Your task to perform on an android device: View the shopping cart on walmart.com. Image 0: 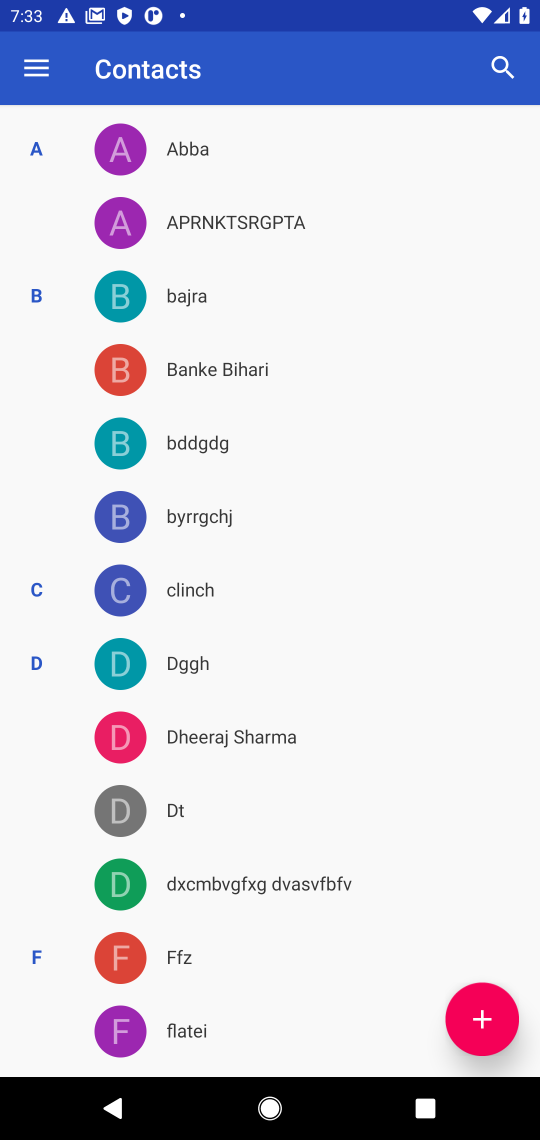
Step 0: press home button
Your task to perform on an android device: View the shopping cart on walmart.com. Image 1: 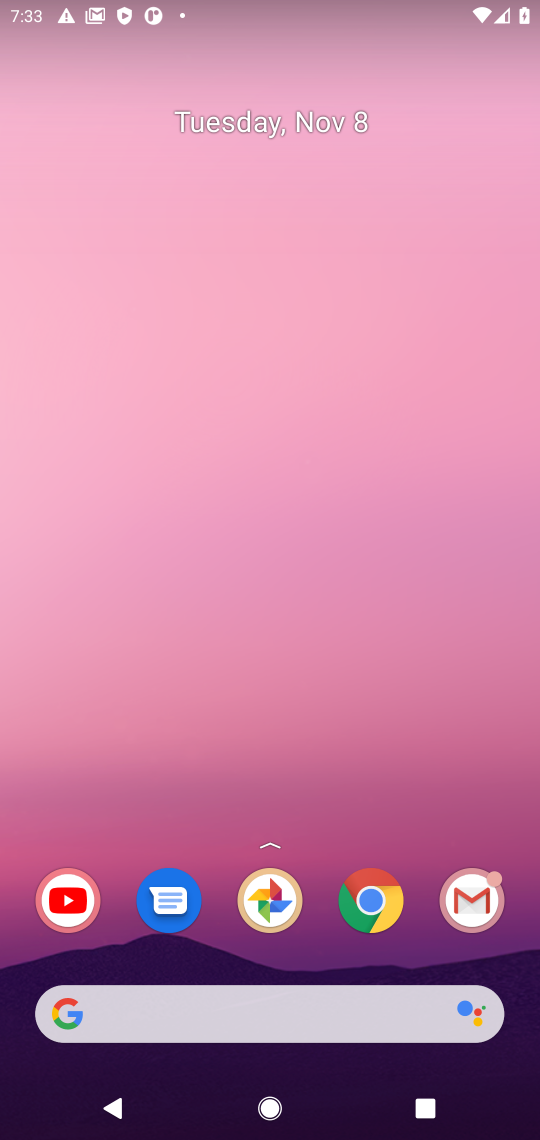
Step 1: click (370, 900)
Your task to perform on an android device: View the shopping cart on walmart.com. Image 2: 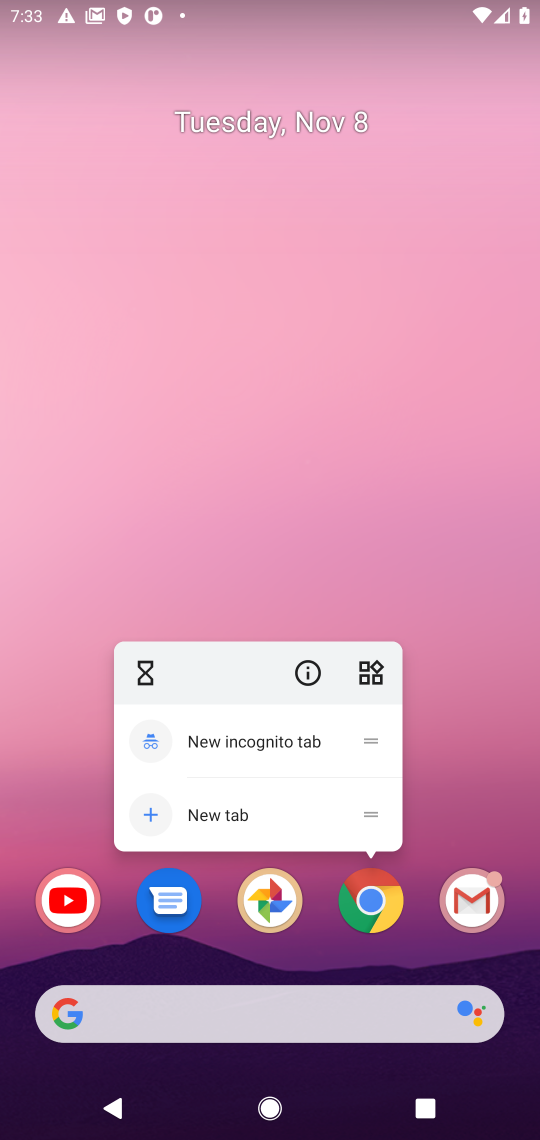
Step 2: click (373, 912)
Your task to perform on an android device: View the shopping cart on walmart.com. Image 3: 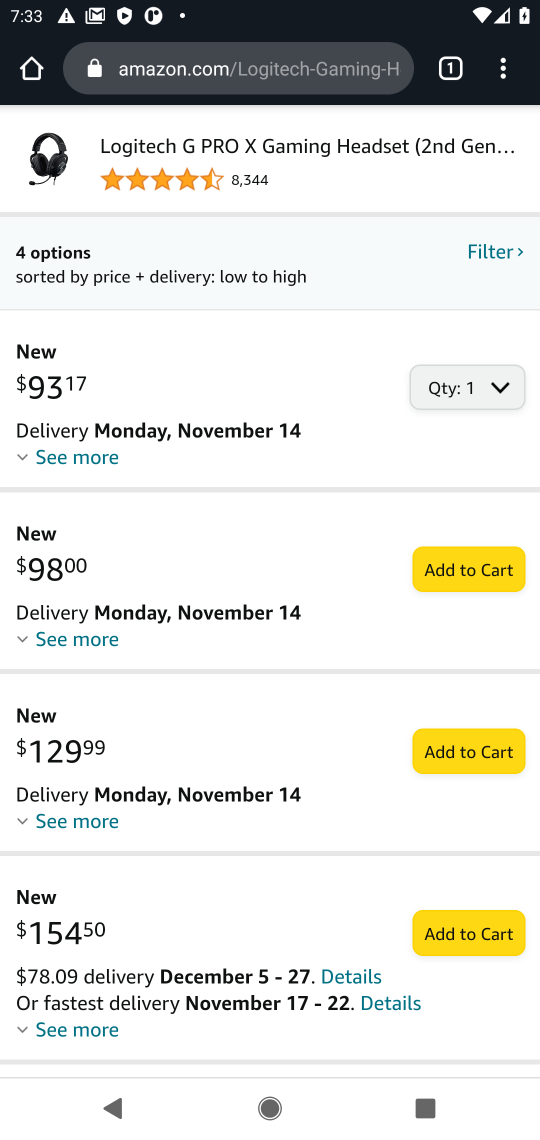
Step 3: click (160, 72)
Your task to perform on an android device: View the shopping cart on walmart.com. Image 4: 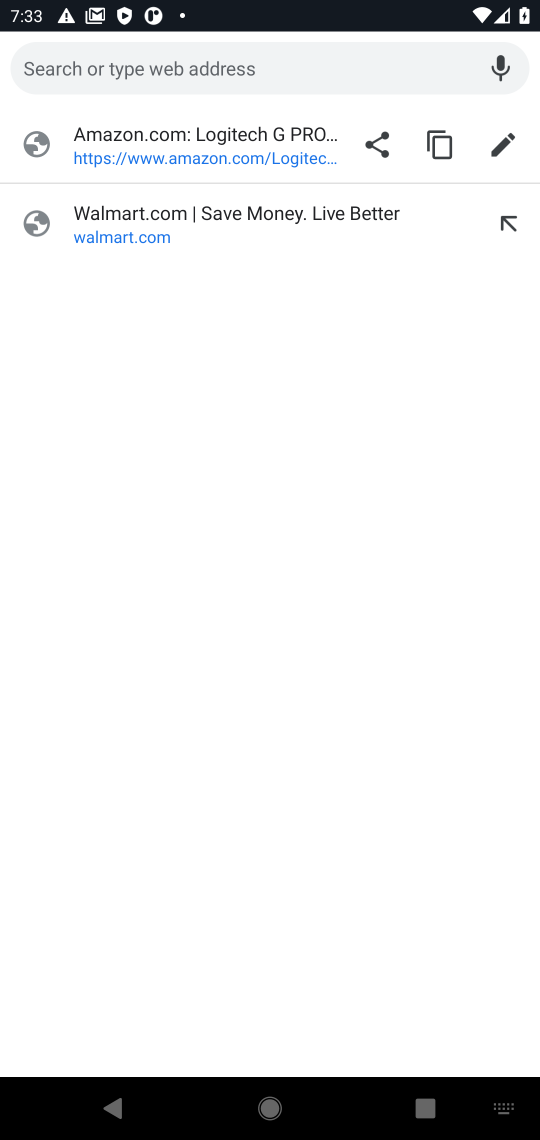
Step 4: type "walmart"
Your task to perform on an android device: View the shopping cart on walmart.com. Image 5: 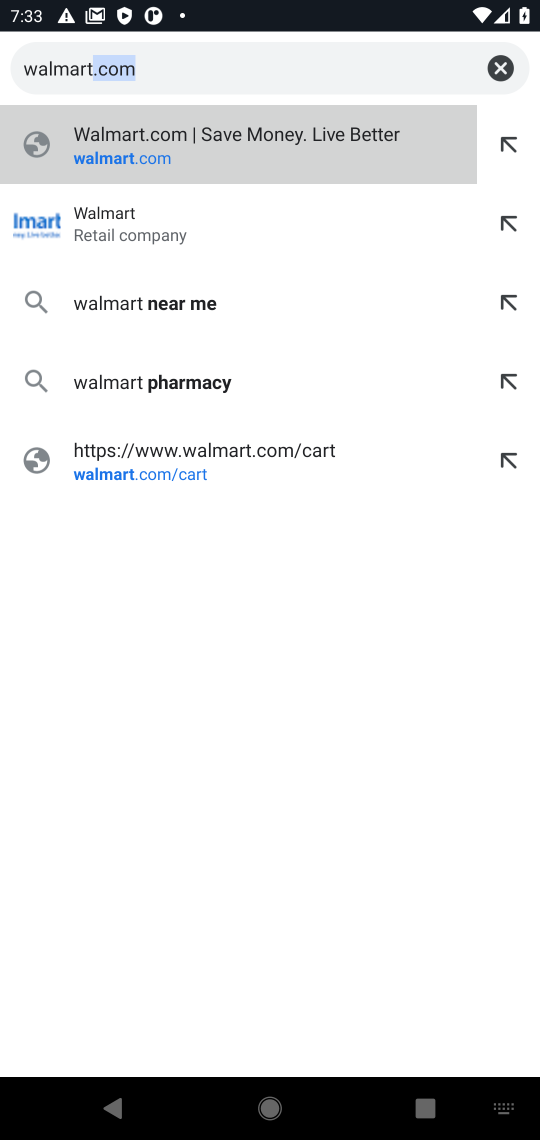
Step 5: click (101, 212)
Your task to perform on an android device: View the shopping cart on walmart.com. Image 6: 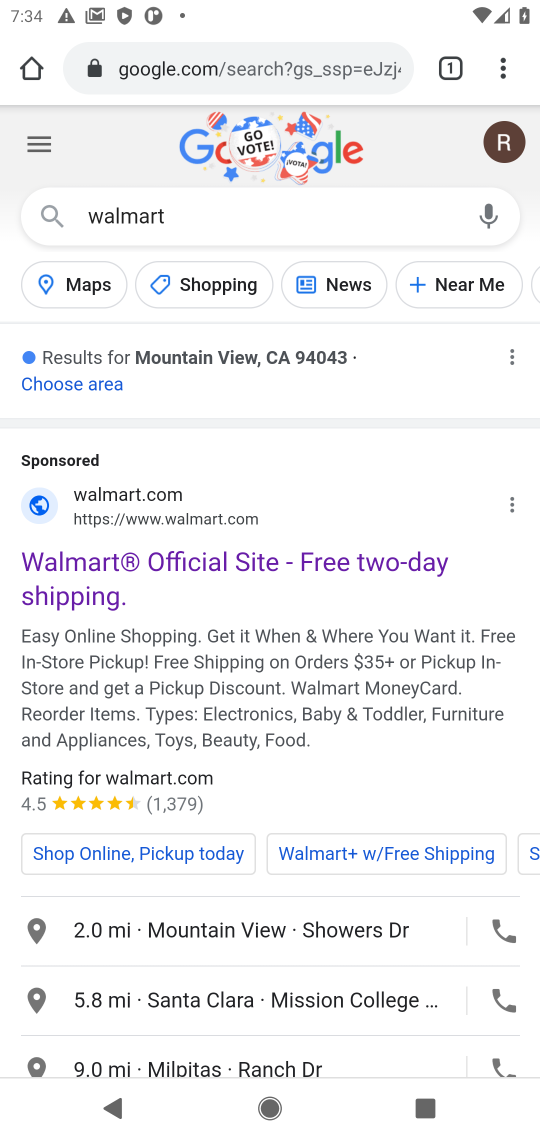
Step 6: drag from (212, 754) to (180, 331)
Your task to perform on an android device: View the shopping cart on walmart.com. Image 7: 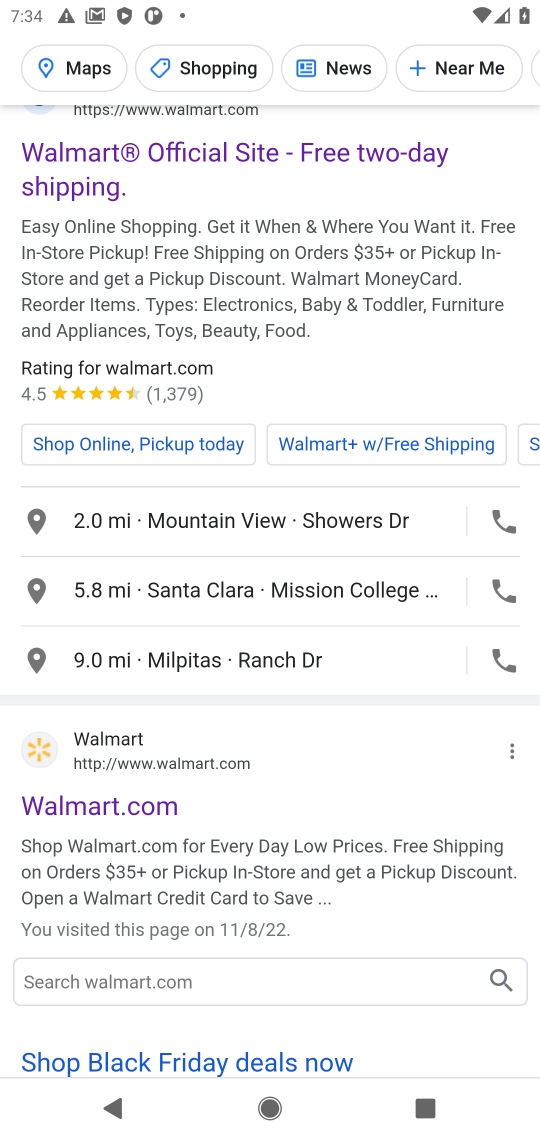
Step 7: click (98, 809)
Your task to perform on an android device: View the shopping cart on walmart.com. Image 8: 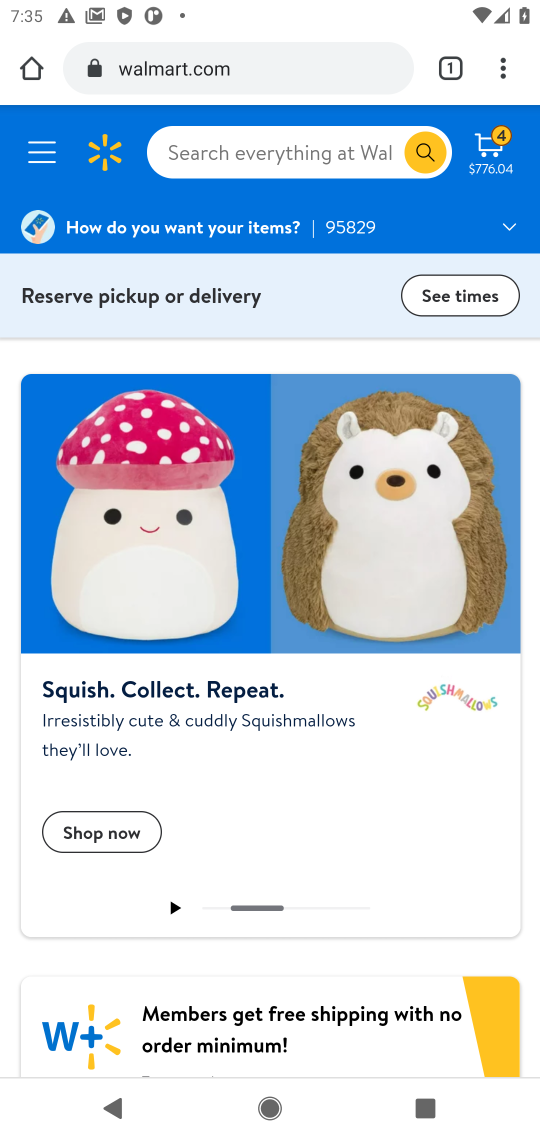
Step 8: click (509, 150)
Your task to perform on an android device: View the shopping cart on walmart.com. Image 9: 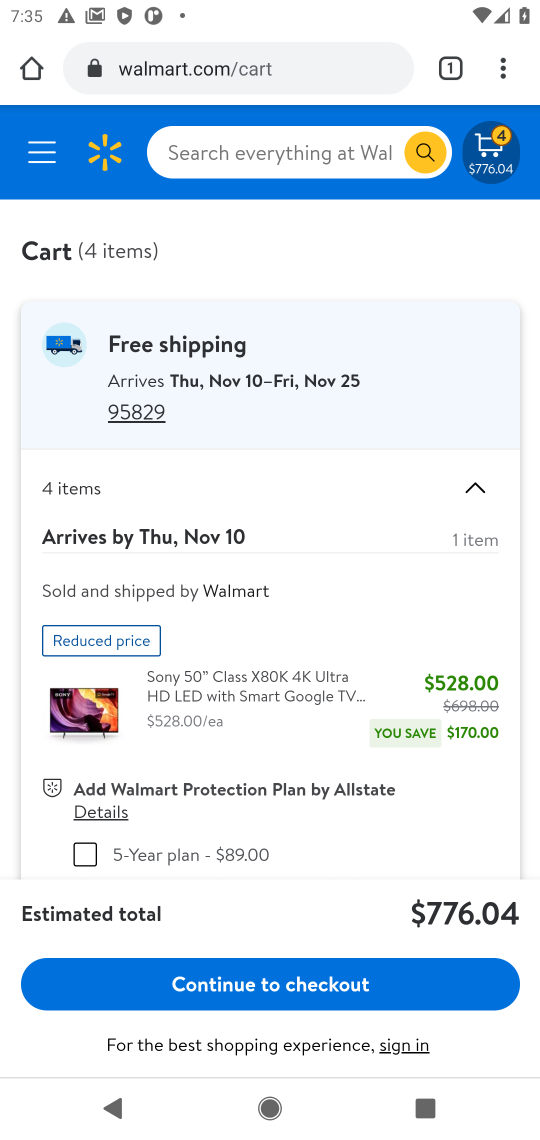
Step 9: drag from (291, 652) to (267, 108)
Your task to perform on an android device: View the shopping cart on walmart.com. Image 10: 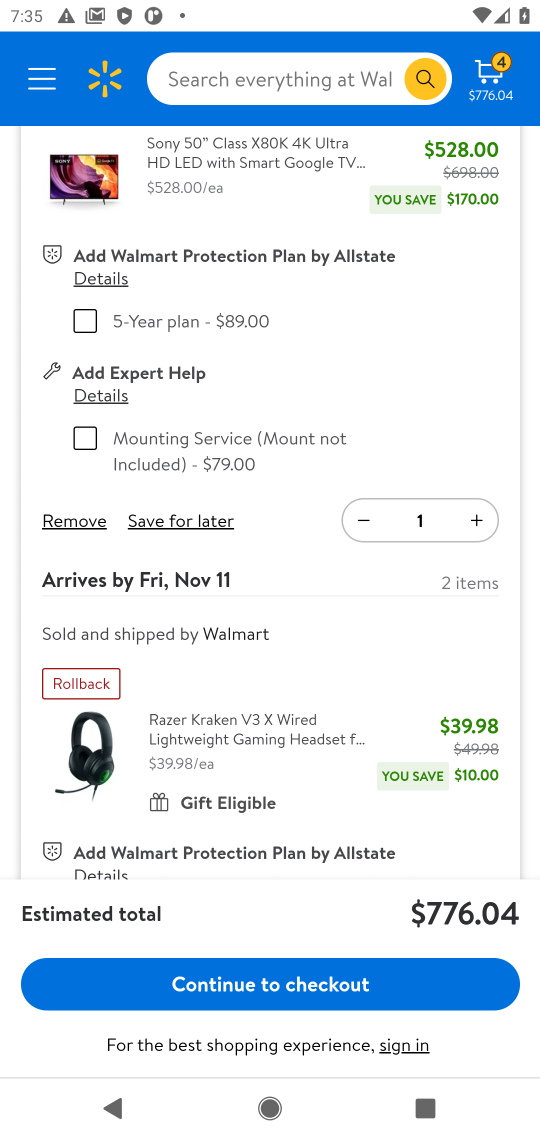
Step 10: click (81, 520)
Your task to perform on an android device: View the shopping cart on walmart.com. Image 11: 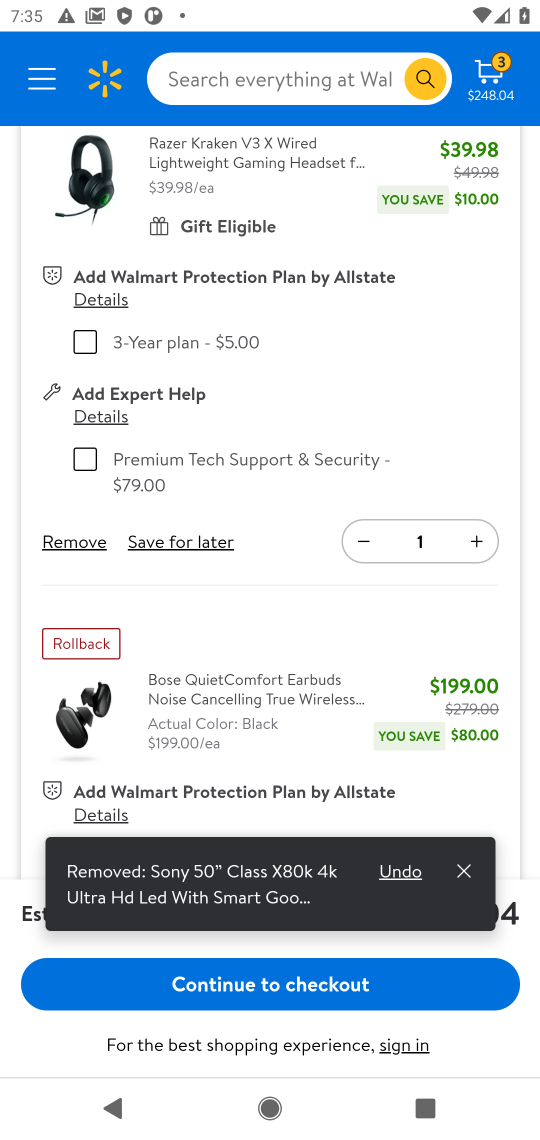
Step 11: drag from (183, 722) to (269, 128)
Your task to perform on an android device: View the shopping cart on walmart.com. Image 12: 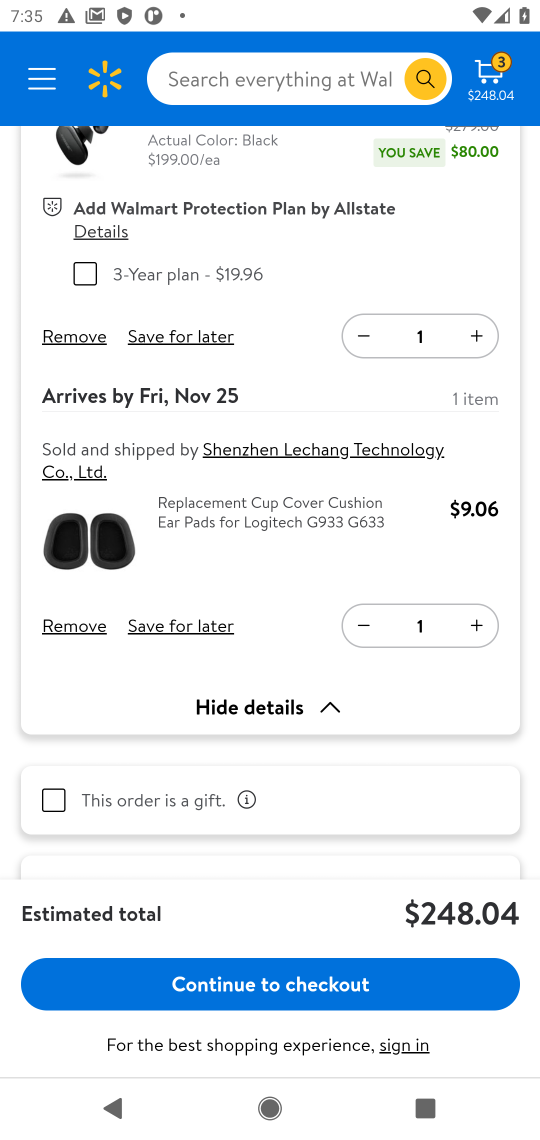
Step 12: click (84, 335)
Your task to perform on an android device: View the shopping cart on walmart.com. Image 13: 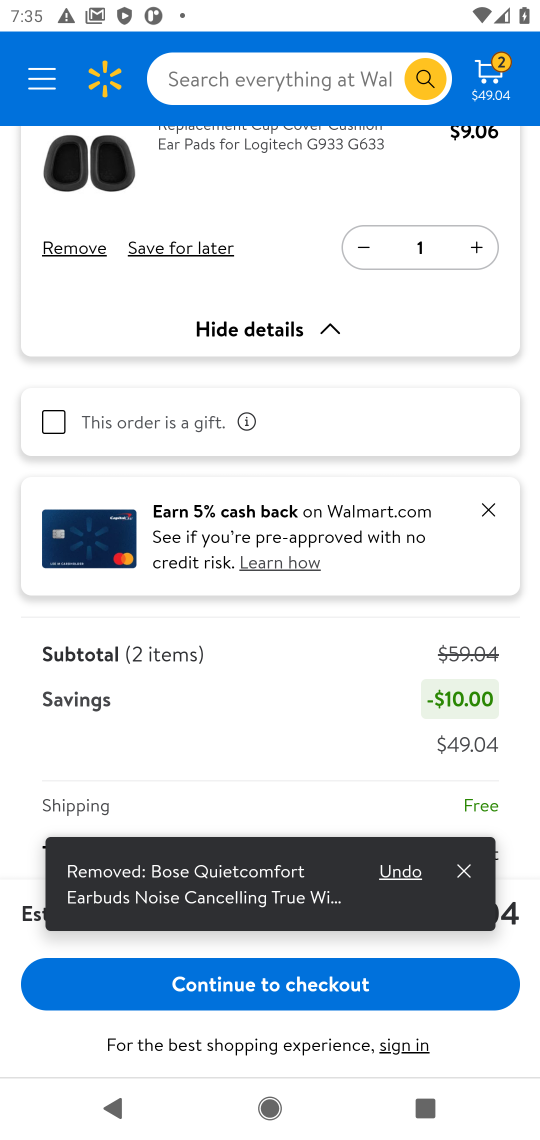
Step 13: click (141, 732)
Your task to perform on an android device: View the shopping cart on walmart.com. Image 14: 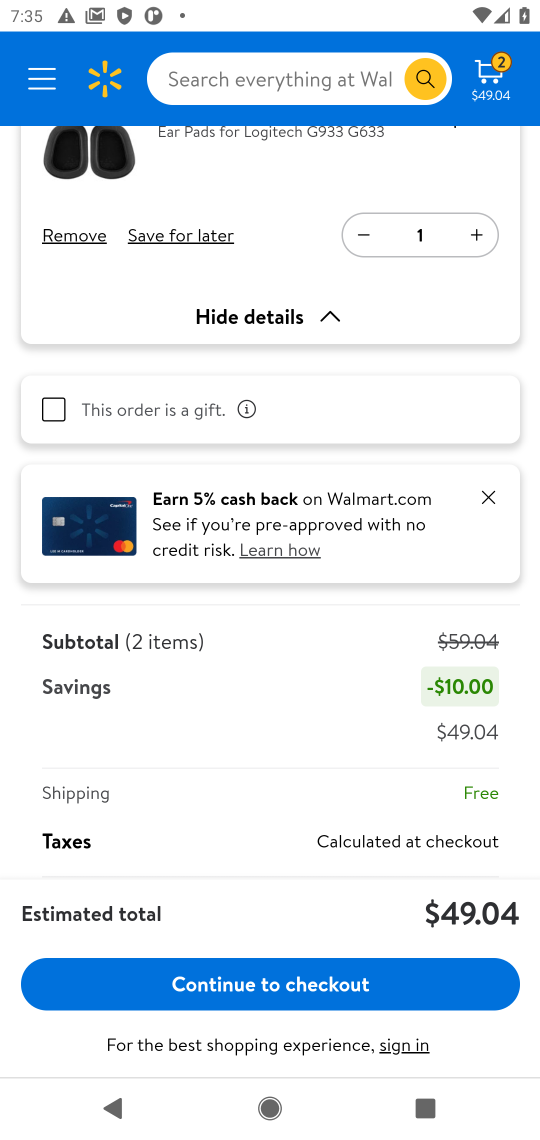
Step 14: click (71, 237)
Your task to perform on an android device: View the shopping cart on walmart.com. Image 15: 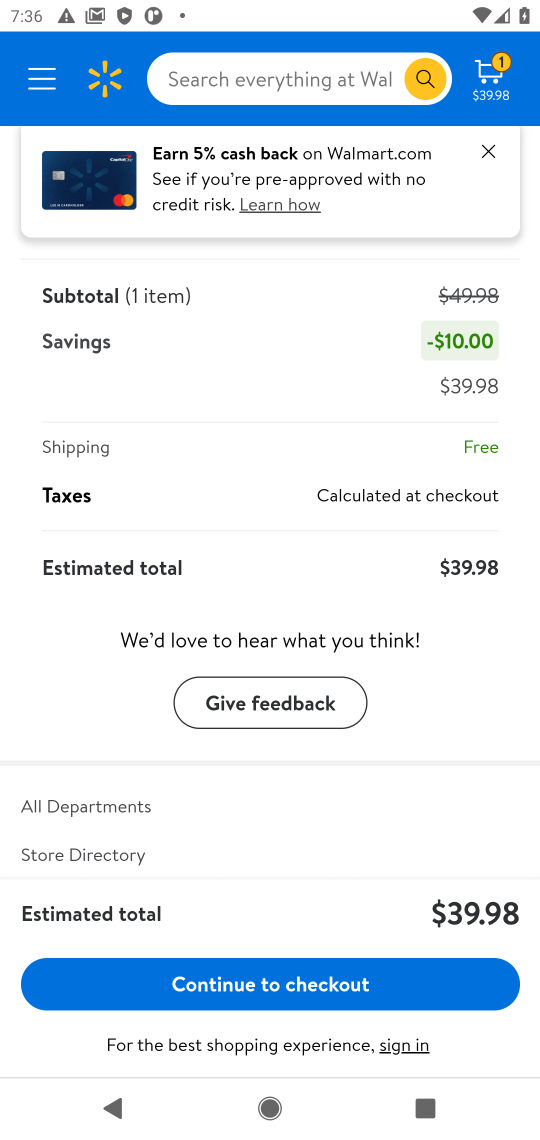
Step 15: task complete